Your task to perform on an android device: Open the stopwatch Image 0: 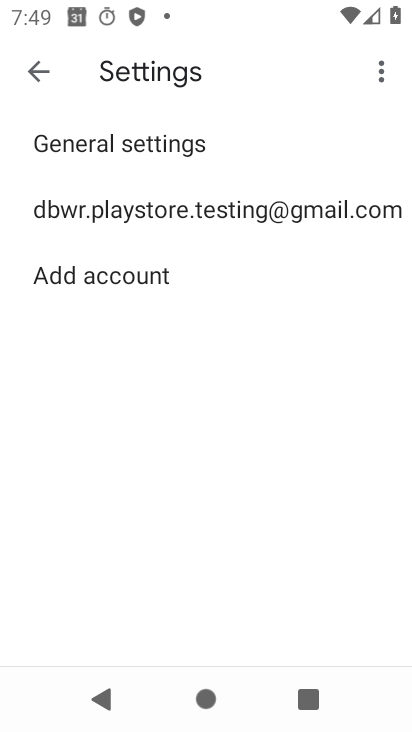
Step 0: press home button
Your task to perform on an android device: Open the stopwatch Image 1: 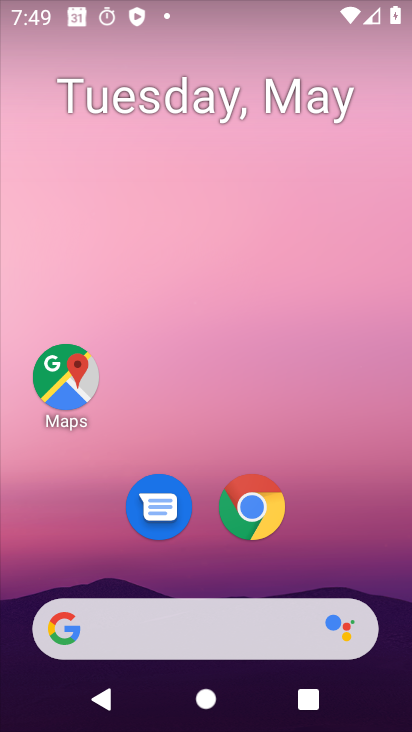
Step 1: drag from (338, 542) to (253, 57)
Your task to perform on an android device: Open the stopwatch Image 2: 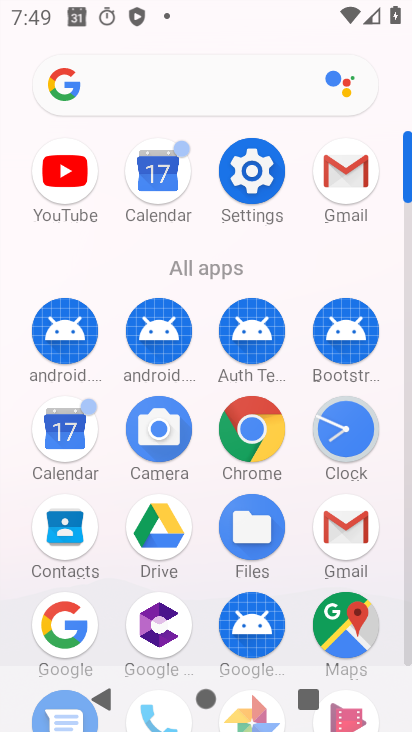
Step 2: click (324, 430)
Your task to perform on an android device: Open the stopwatch Image 3: 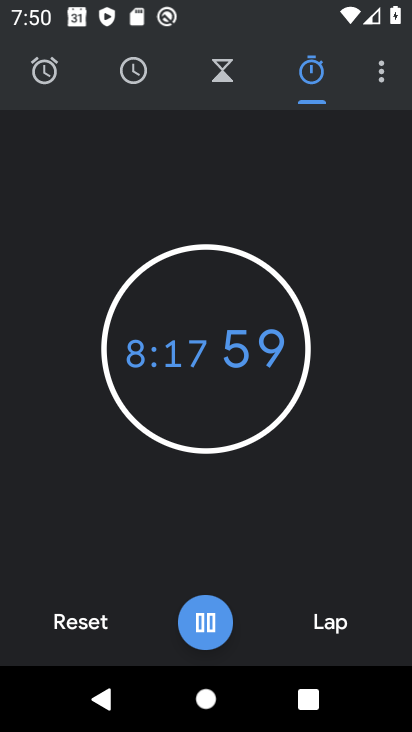
Step 3: task complete